Your task to perform on an android device: turn off picture-in-picture Image 0: 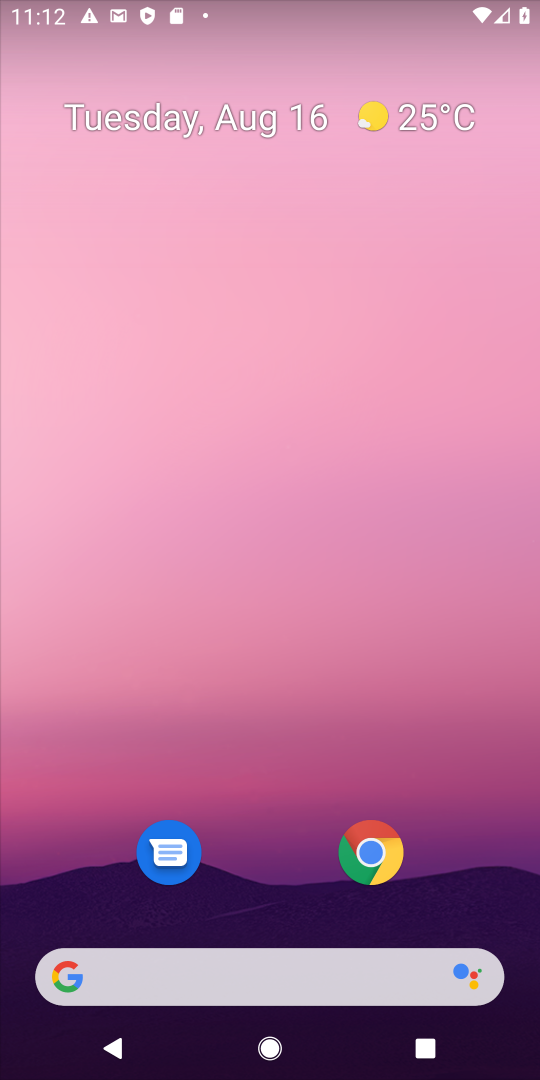
Step 0: drag from (283, 789) to (357, 218)
Your task to perform on an android device: turn off picture-in-picture Image 1: 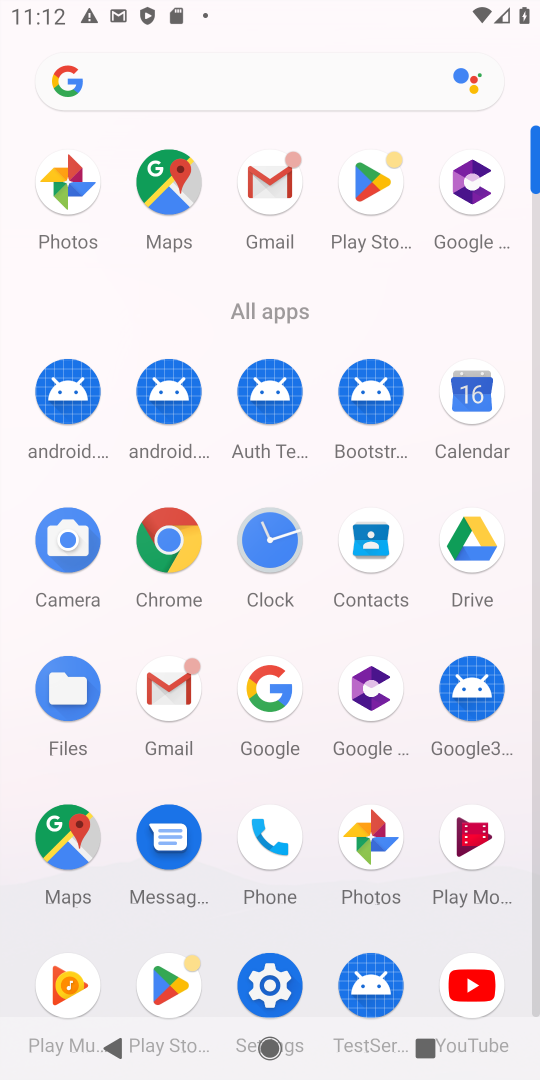
Step 1: click (356, 831)
Your task to perform on an android device: turn off picture-in-picture Image 2: 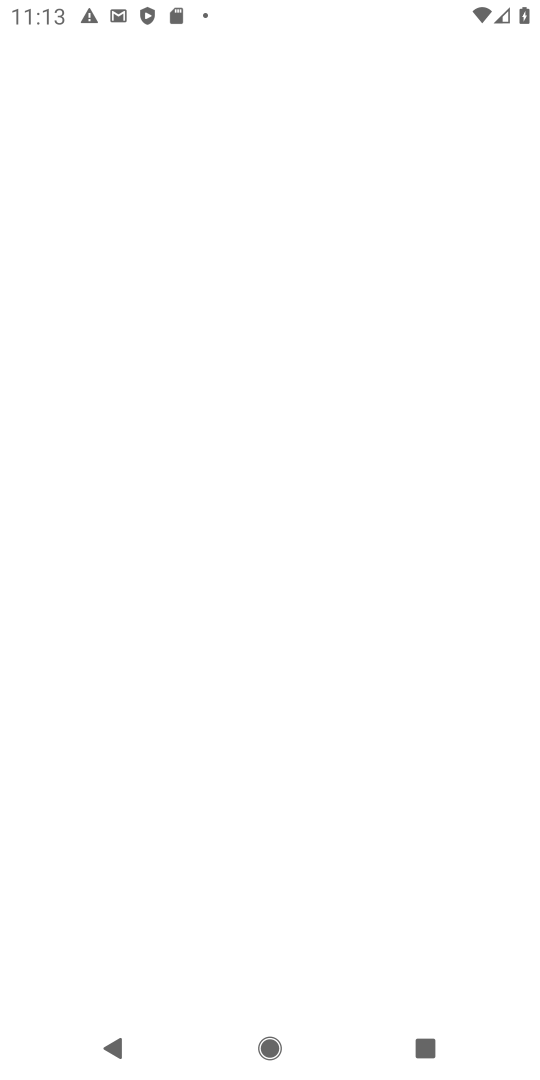
Step 2: task complete